Your task to perform on an android device: Open Android settings Image 0: 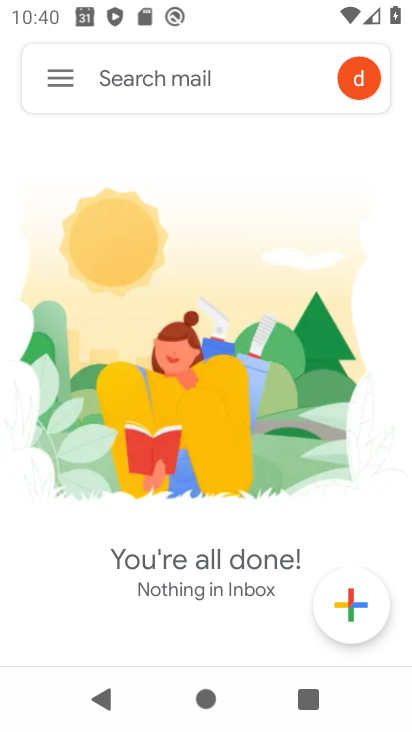
Step 0: press home button
Your task to perform on an android device: Open Android settings Image 1: 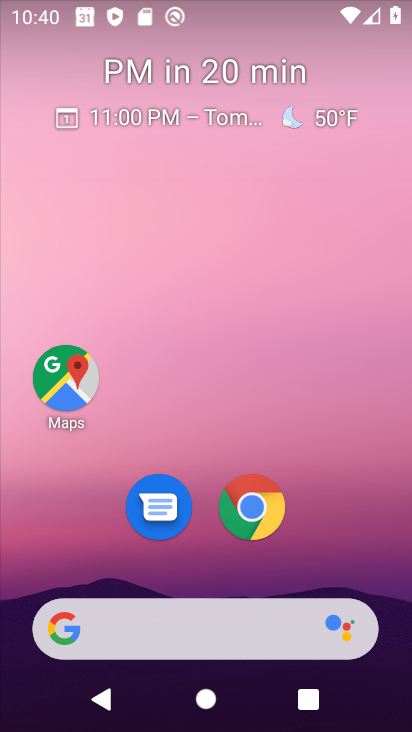
Step 1: drag from (221, 584) to (300, 174)
Your task to perform on an android device: Open Android settings Image 2: 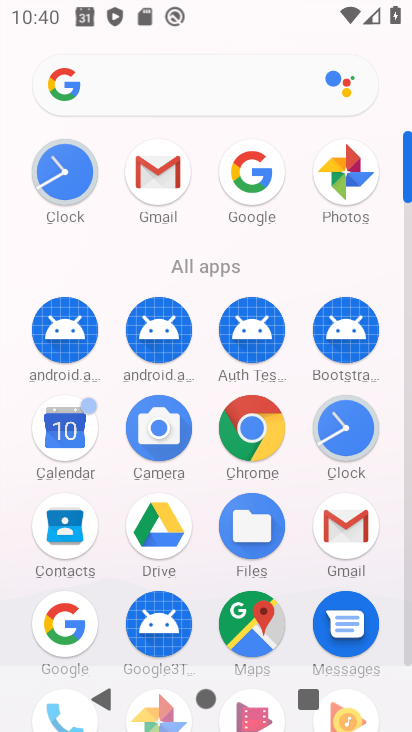
Step 2: drag from (187, 595) to (240, 304)
Your task to perform on an android device: Open Android settings Image 3: 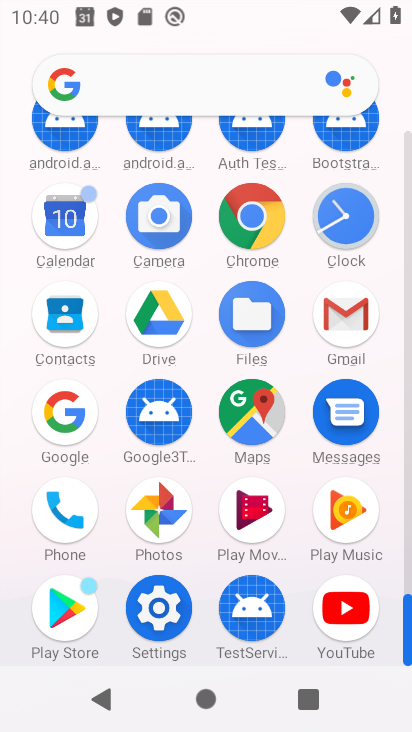
Step 3: click (151, 598)
Your task to perform on an android device: Open Android settings Image 4: 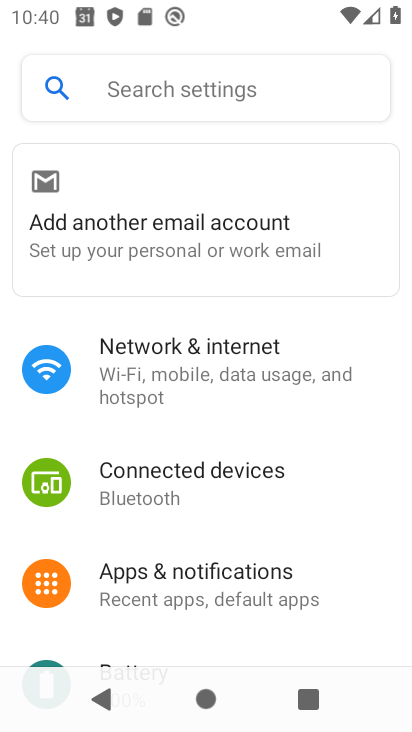
Step 4: task complete